Your task to perform on an android device: turn on the 24-hour format for clock Image 0: 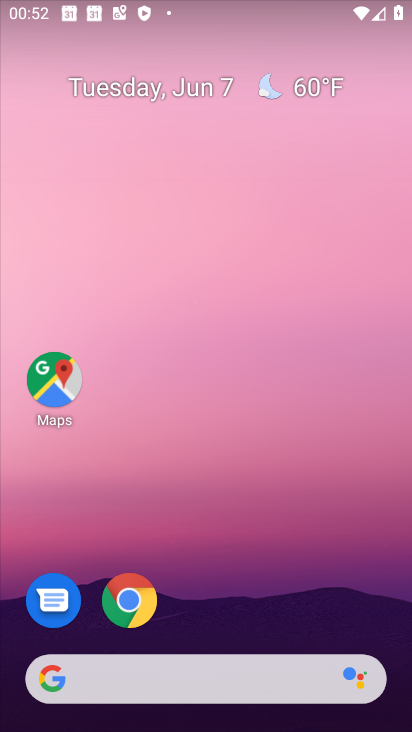
Step 0: drag from (201, 730) to (192, 153)
Your task to perform on an android device: turn on the 24-hour format for clock Image 1: 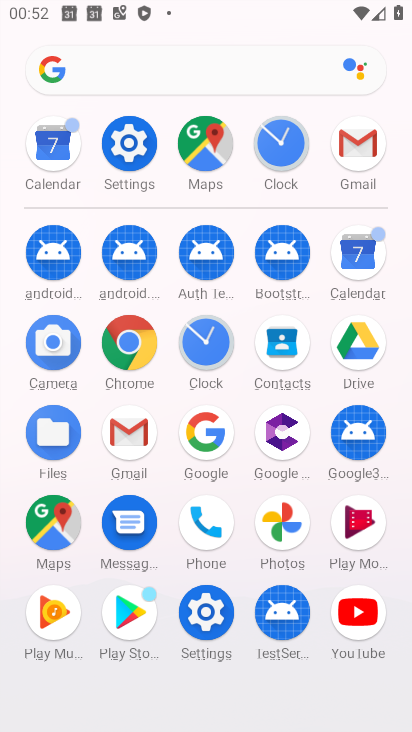
Step 1: click (211, 356)
Your task to perform on an android device: turn on the 24-hour format for clock Image 2: 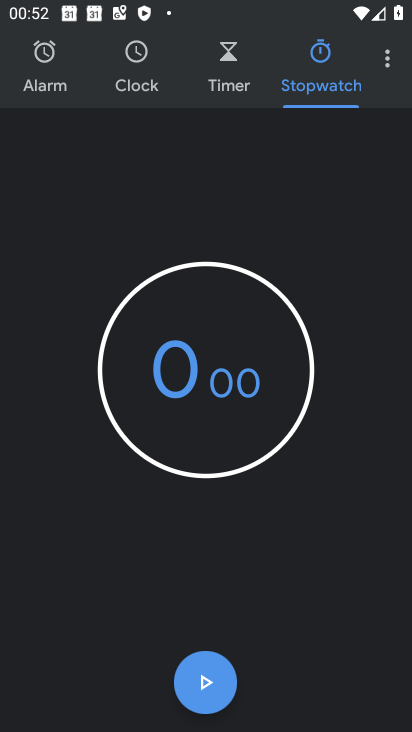
Step 2: click (391, 68)
Your task to perform on an android device: turn on the 24-hour format for clock Image 3: 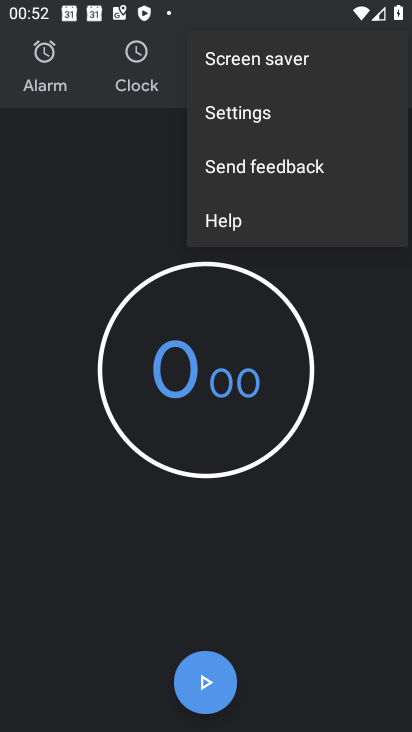
Step 3: click (235, 121)
Your task to perform on an android device: turn on the 24-hour format for clock Image 4: 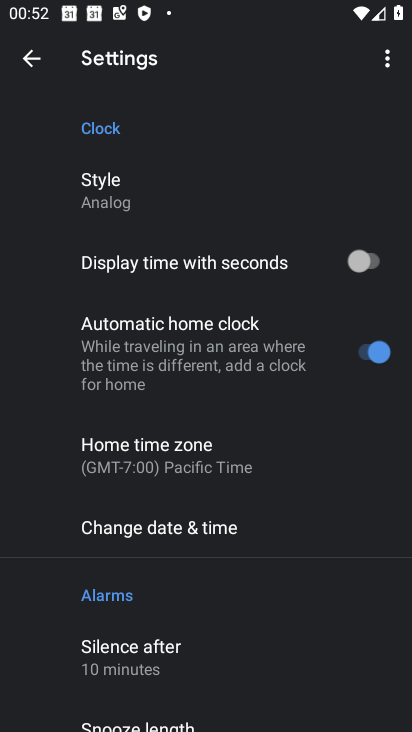
Step 4: click (179, 531)
Your task to perform on an android device: turn on the 24-hour format for clock Image 5: 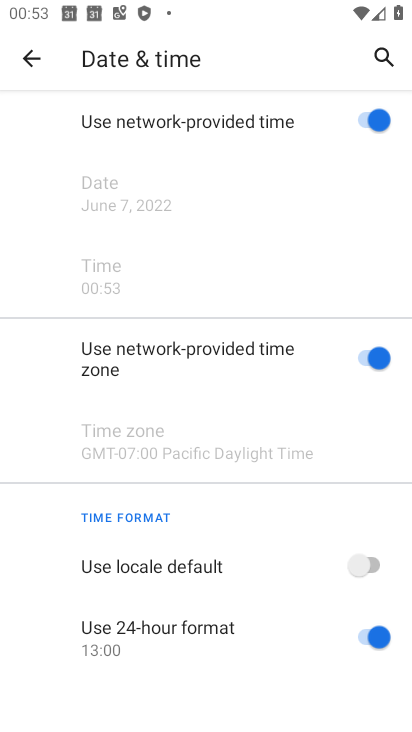
Step 5: task complete